Your task to perform on an android device: When is my next appointment? Image 0: 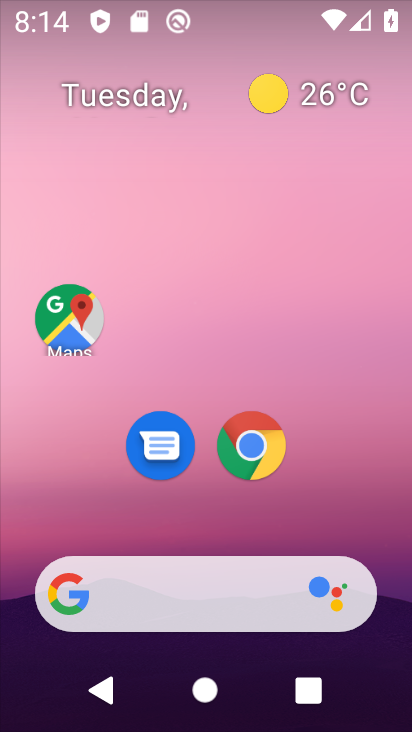
Step 0: drag from (331, 499) to (299, 256)
Your task to perform on an android device: When is my next appointment? Image 1: 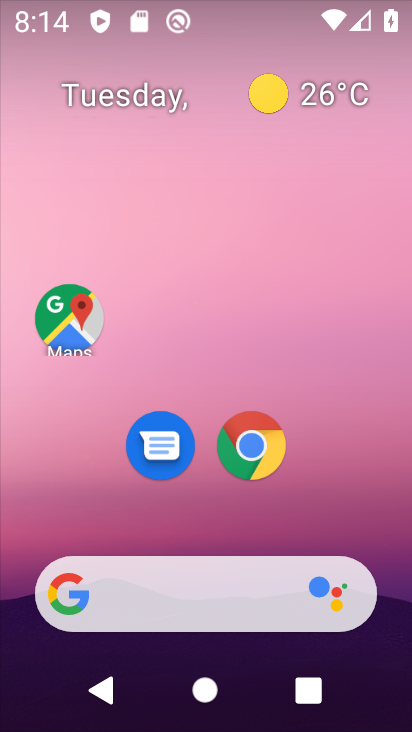
Step 1: drag from (325, 493) to (265, 49)
Your task to perform on an android device: When is my next appointment? Image 2: 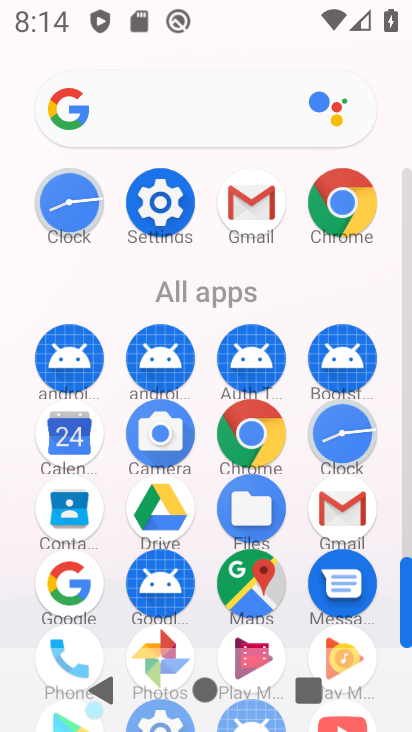
Step 2: click (71, 436)
Your task to perform on an android device: When is my next appointment? Image 3: 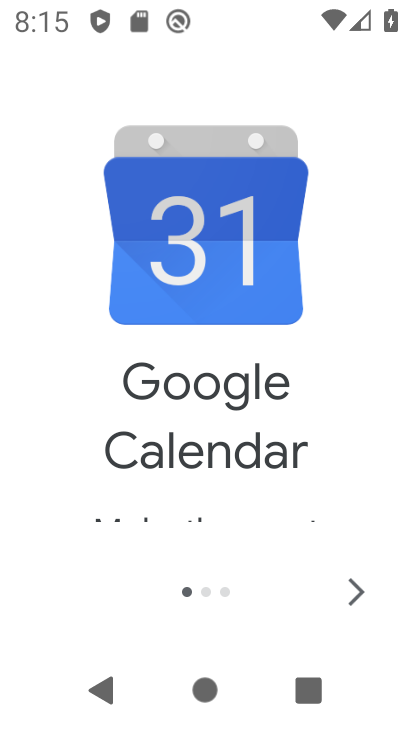
Step 3: click (358, 590)
Your task to perform on an android device: When is my next appointment? Image 4: 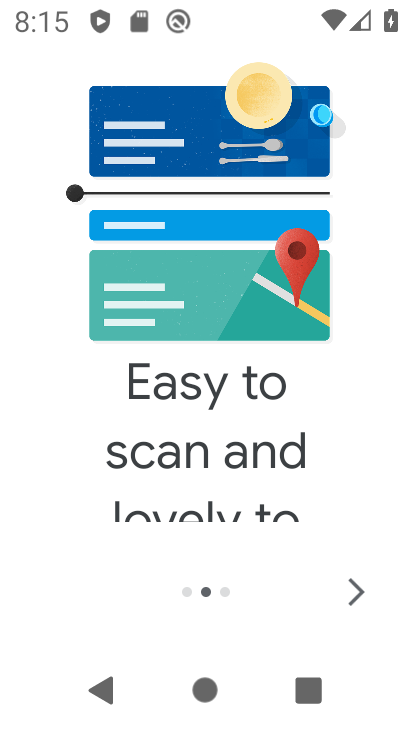
Step 4: click (358, 590)
Your task to perform on an android device: When is my next appointment? Image 5: 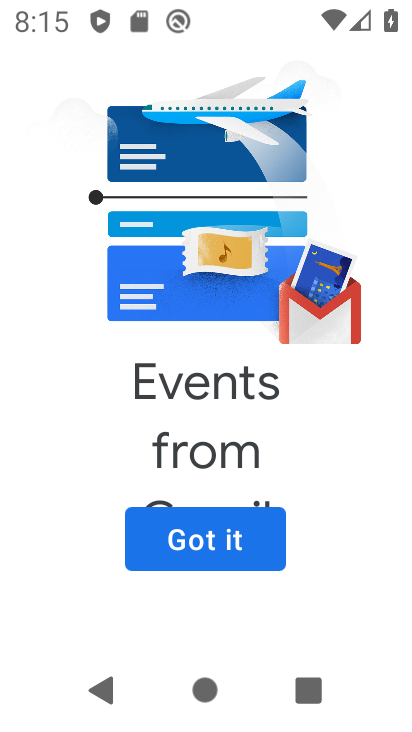
Step 5: click (226, 542)
Your task to perform on an android device: When is my next appointment? Image 6: 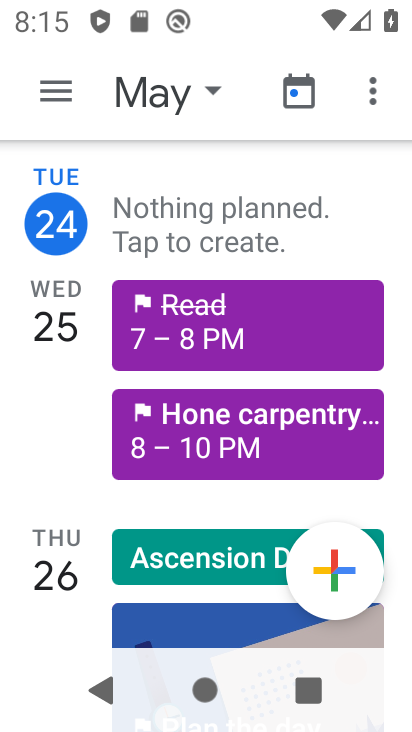
Step 6: click (210, 88)
Your task to perform on an android device: When is my next appointment? Image 7: 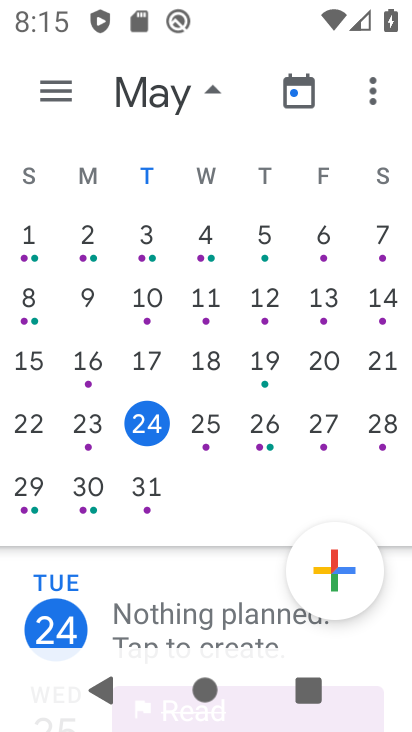
Step 7: click (208, 436)
Your task to perform on an android device: When is my next appointment? Image 8: 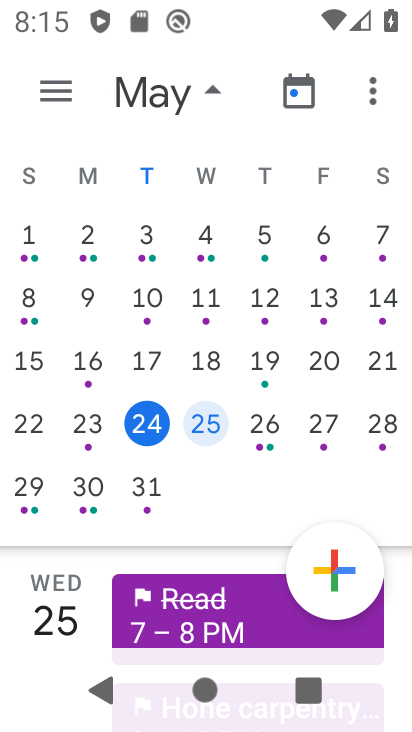
Step 8: click (62, 94)
Your task to perform on an android device: When is my next appointment? Image 9: 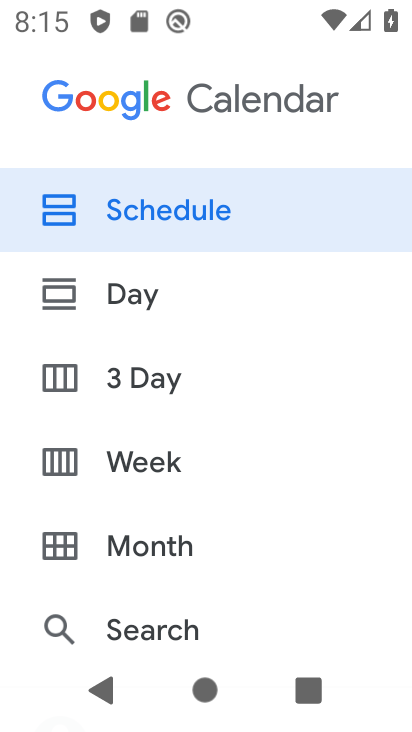
Step 9: click (177, 209)
Your task to perform on an android device: When is my next appointment? Image 10: 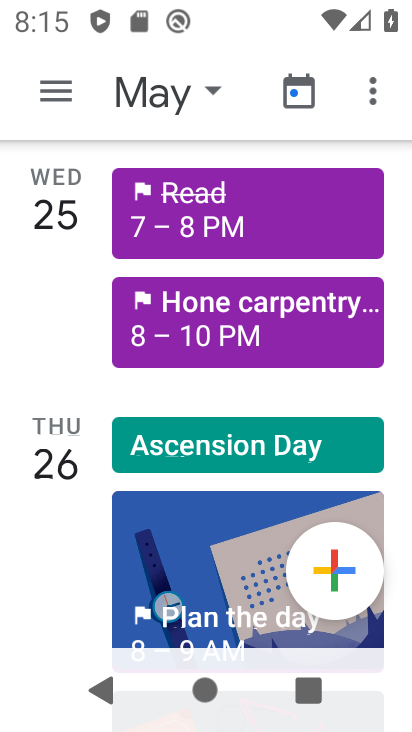
Step 10: task complete